Your task to perform on an android device: change notification settings in the gmail app Image 0: 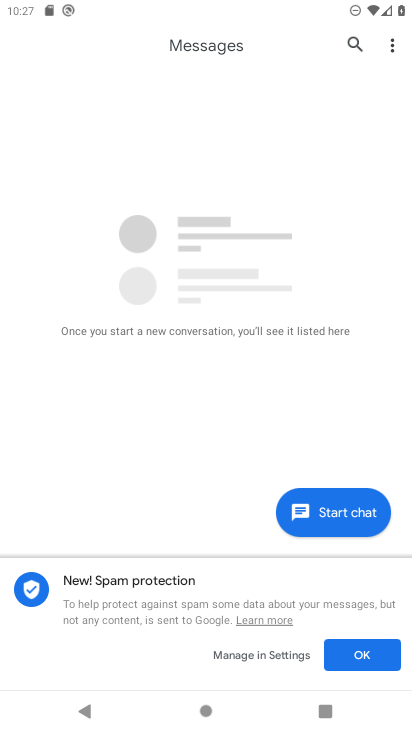
Step 0: press home button
Your task to perform on an android device: change notification settings in the gmail app Image 1: 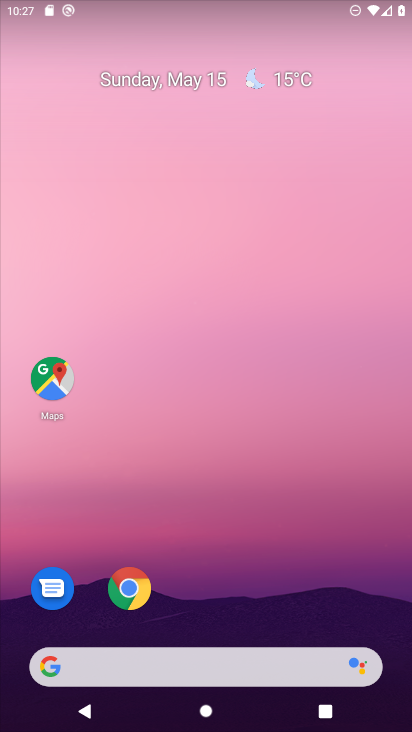
Step 1: drag from (235, 584) to (267, 0)
Your task to perform on an android device: change notification settings in the gmail app Image 2: 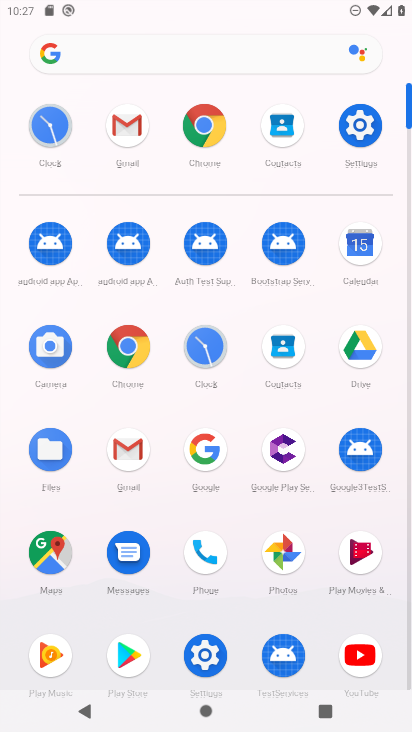
Step 2: click (122, 462)
Your task to perform on an android device: change notification settings in the gmail app Image 3: 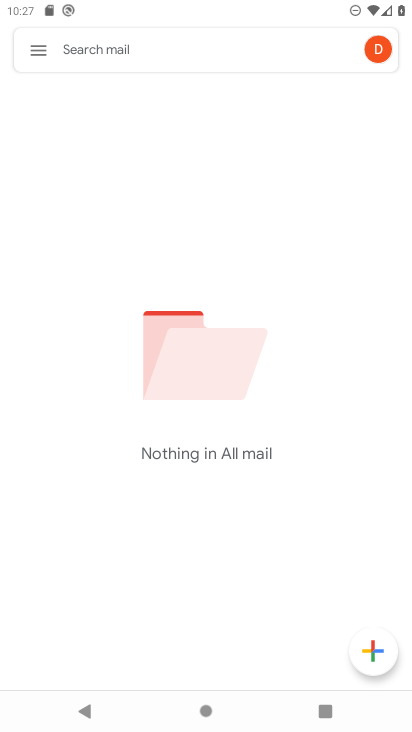
Step 3: click (38, 50)
Your task to perform on an android device: change notification settings in the gmail app Image 4: 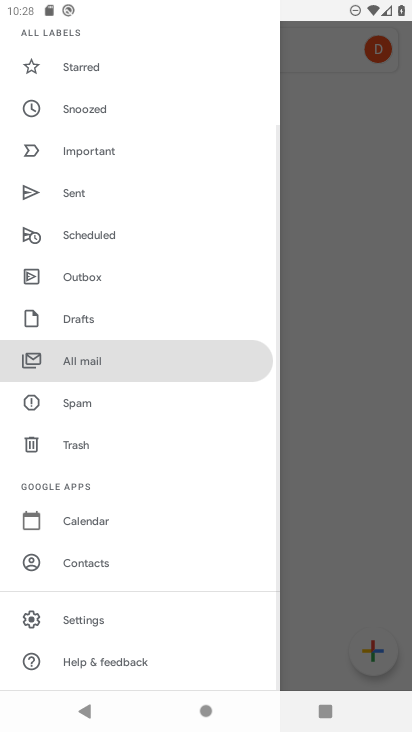
Step 4: click (96, 624)
Your task to perform on an android device: change notification settings in the gmail app Image 5: 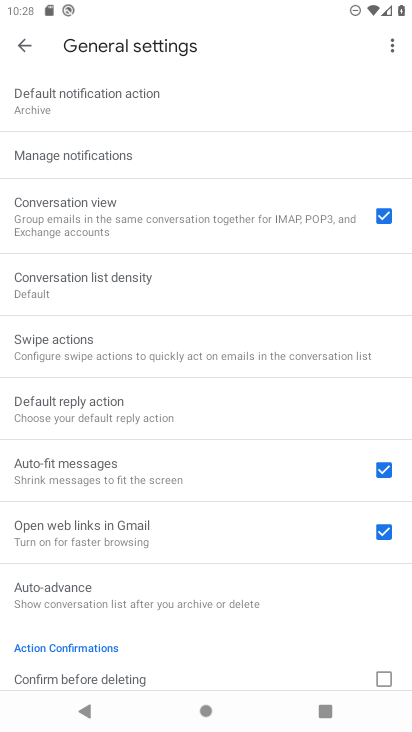
Step 5: click (31, 41)
Your task to perform on an android device: change notification settings in the gmail app Image 6: 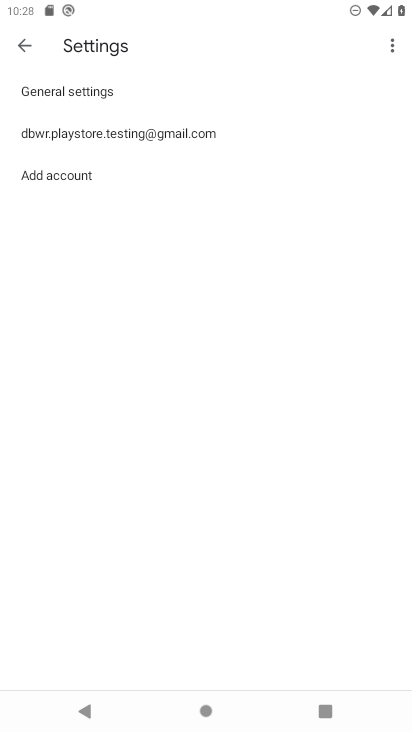
Step 6: click (91, 92)
Your task to perform on an android device: change notification settings in the gmail app Image 7: 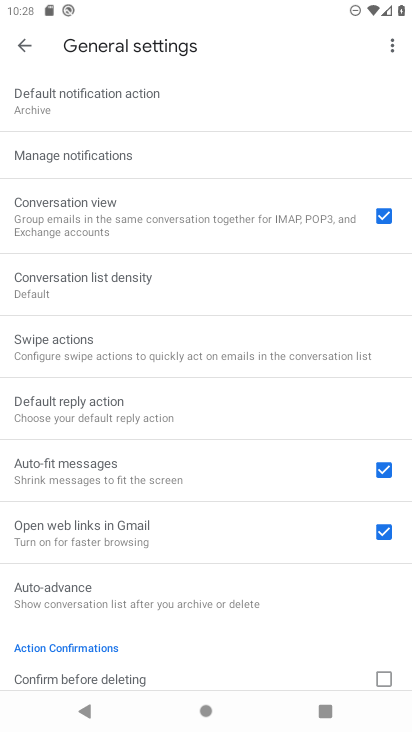
Step 7: click (86, 150)
Your task to perform on an android device: change notification settings in the gmail app Image 8: 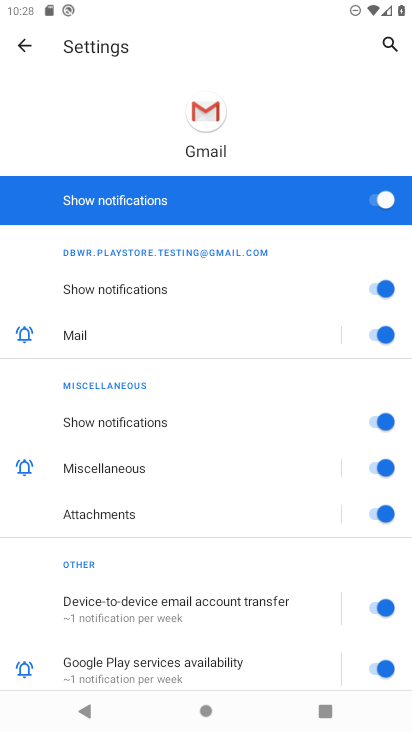
Step 8: click (364, 195)
Your task to perform on an android device: change notification settings in the gmail app Image 9: 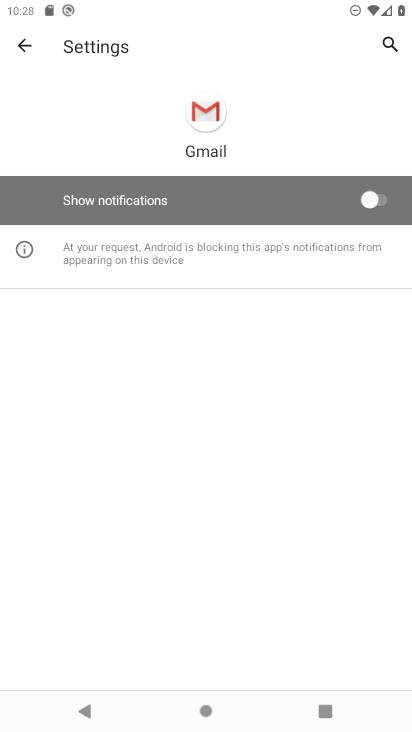
Step 9: task complete